Your task to perform on an android device: change the clock style Image 0: 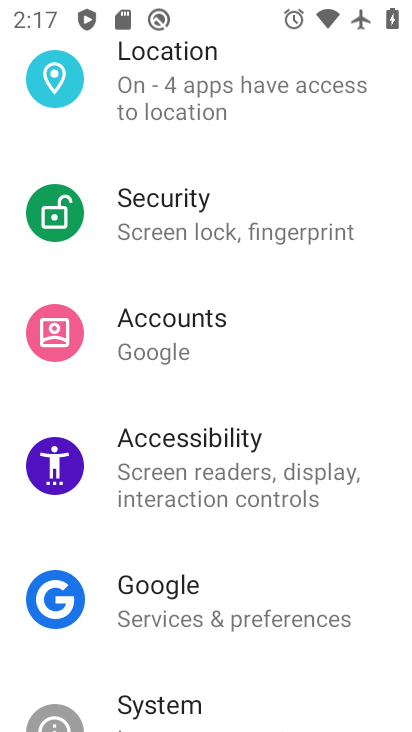
Step 0: press home button
Your task to perform on an android device: change the clock style Image 1: 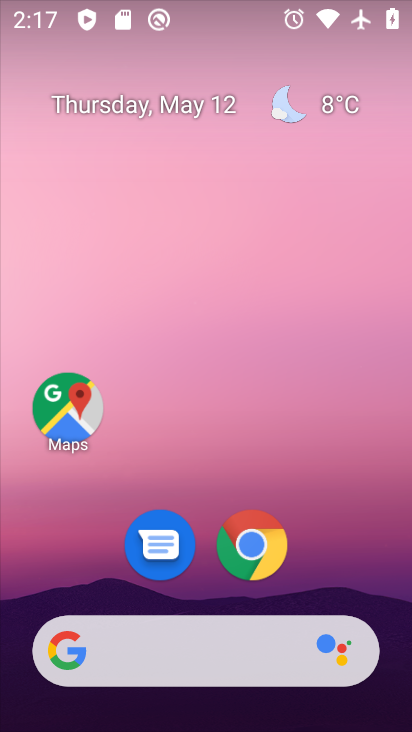
Step 1: drag from (358, 583) to (329, 66)
Your task to perform on an android device: change the clock style Image 2: 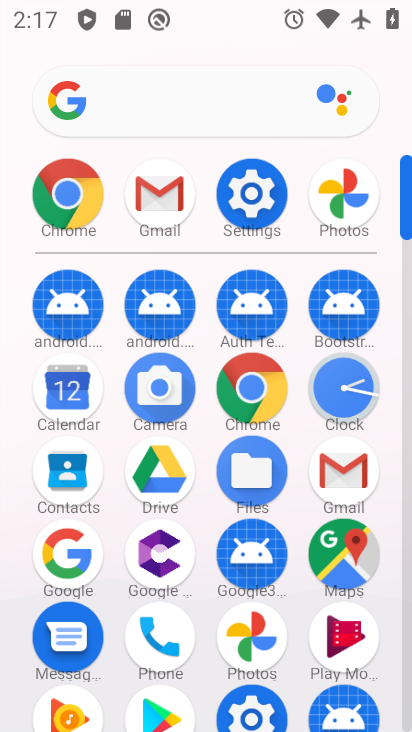
Step 2: click (409, 709)
Your task to perform on an android device: change the clock style Image 3: 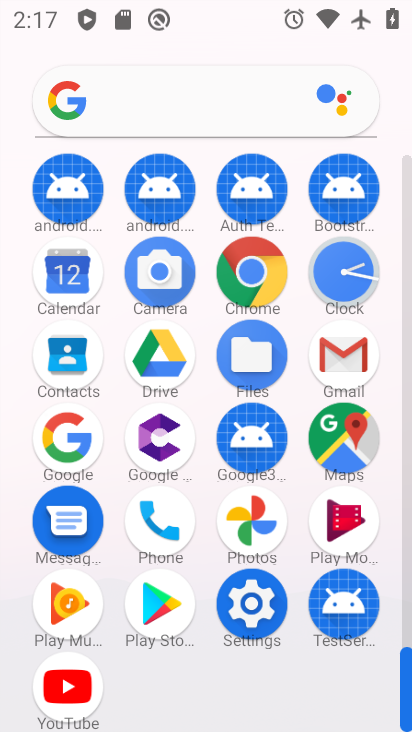
Step 3: click (340, 273)
Your task to perform on an android device: change the clock style Image 4: 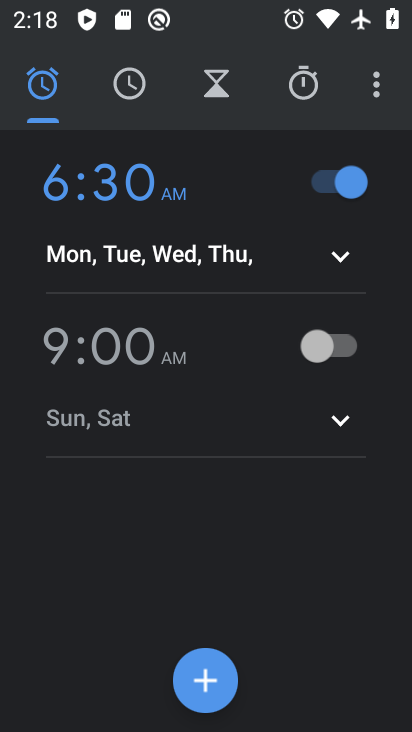
Step 4: click (375, 90)
Your task to perform on an android device: change the clock style Image 5: 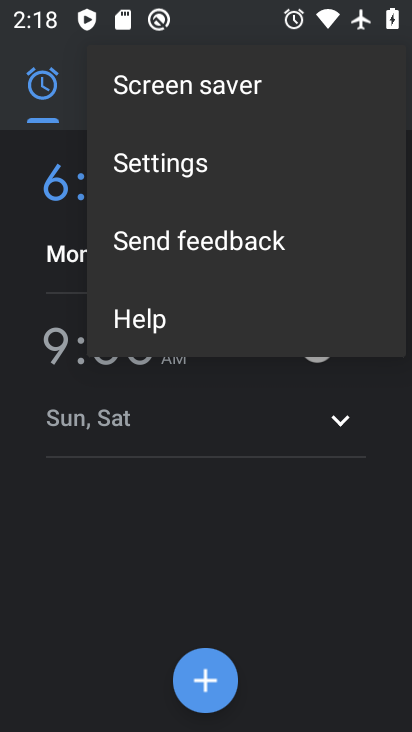
Step 5: click (148, 162)
Your task to perform on an android device: change the clock style Image 6: 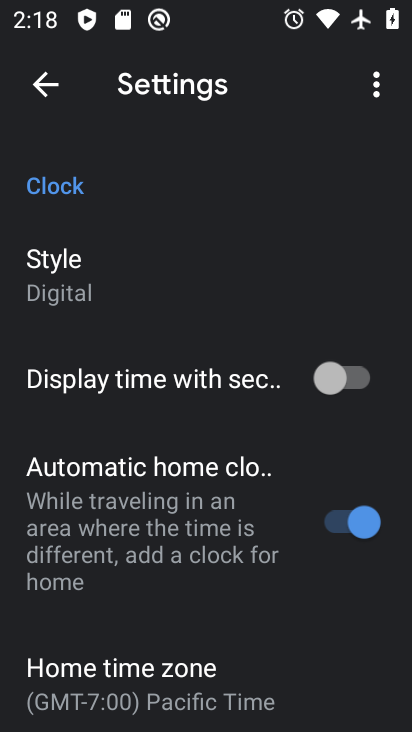
Step 6: click (53, 278)
Your task to perform on an android device: change the clock style Image 7: 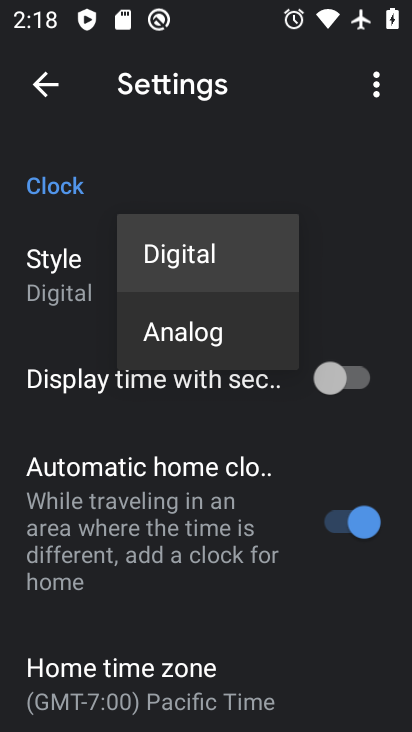
Step 7: click (184, 330)
Your task to perform on an android device: change the clock style Image 8: 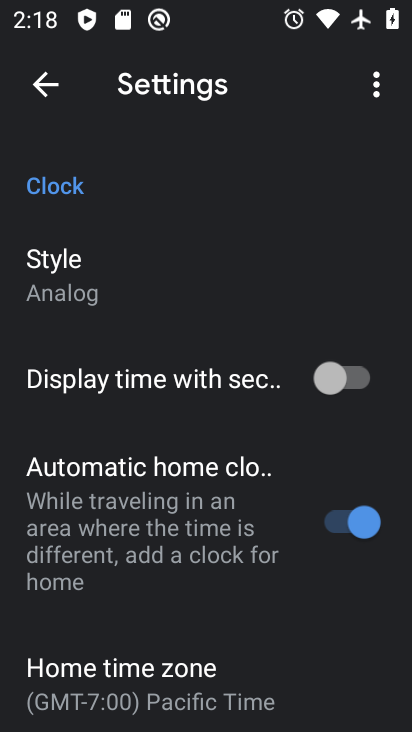
Step 8: task complete